Your task to perform on an android device: turn on showing notifications on the lock screen Image 0: 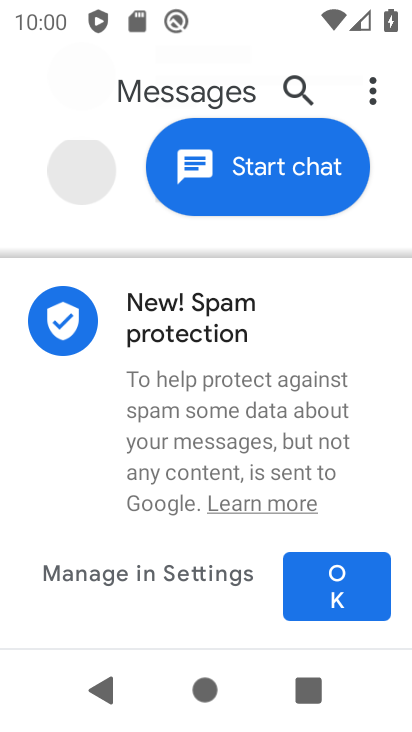
Step 0: press home button
Your task to perform on an android device: turn on showing notifications on the lock screen Image 1: 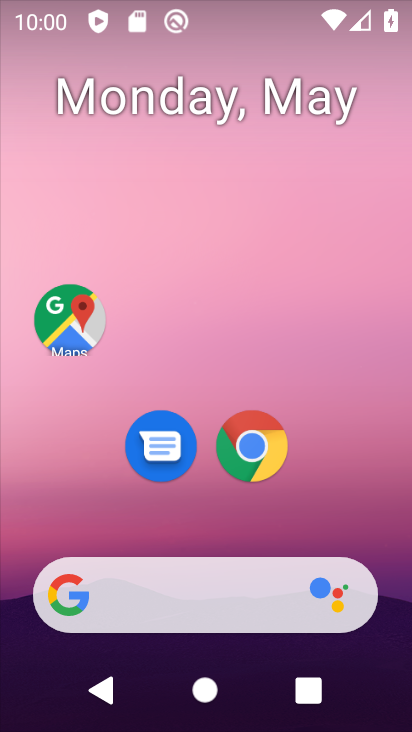
Step 1: drag from (358, 507) to (287, 113)
Your task to perform on an android device: turn on showing notifications on the lock screen Image 2: 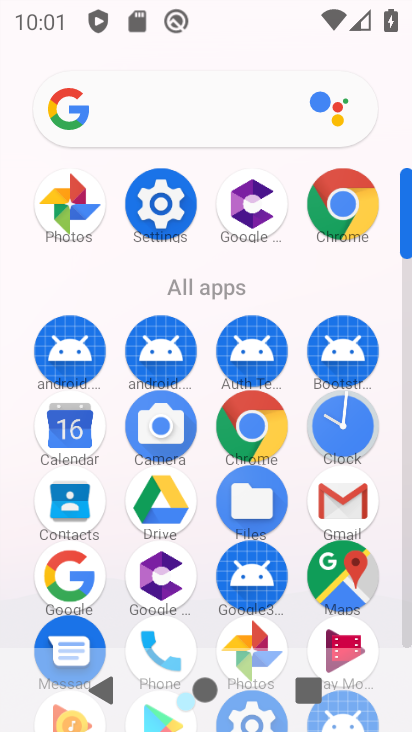
Step 2: click (147, 233)
Your task to perform on an android device: turn on showing notifications on the lock screen Image 3: 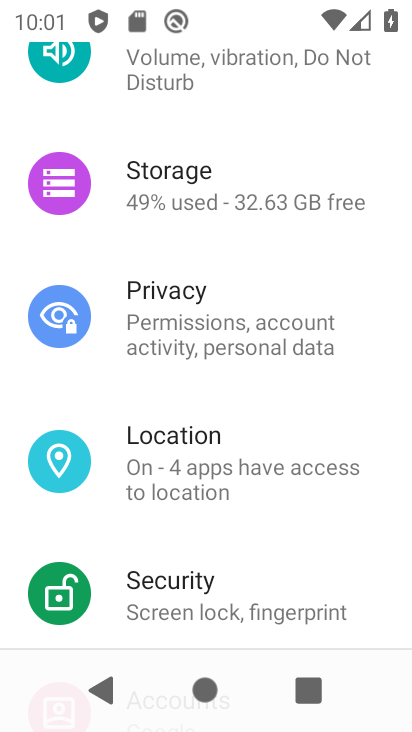
Step 3: drag from (232, 226) to (300, 717)
Your task to perform on an android device: turn on showing notifications on the lock screen Image 4: 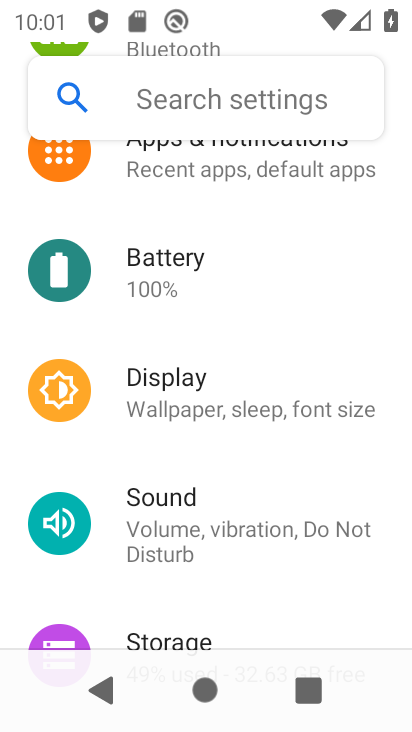
Step 4: drag from (190, 225) to (372, 678)
Your task to perform on an android device: turn on showing notifications on the lock screen Image 5: 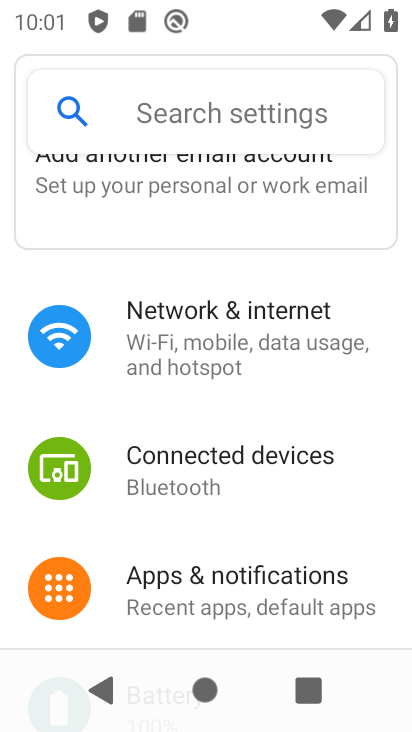
Step 5: click (219, 593)
Your task to perform on an android device: turn on showing notifications on the lock screen Image 6: 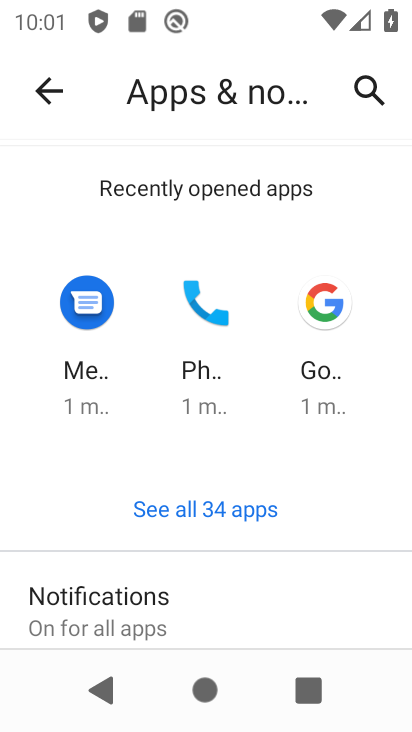
Step 6: click (219, 593)
Your task to perform on an android device: turn on showing notifications on the lock screen Image 7: 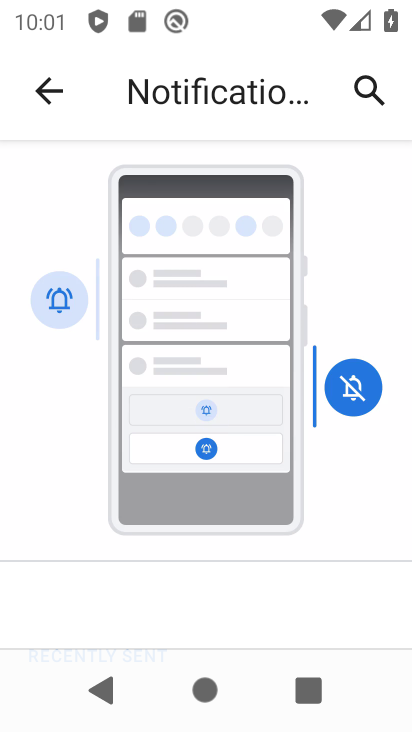
Step 7: drag from (266, 586) to (199, 256)
Your task to perform on an android device: turn on showing notifications on the lock screen Image 8: 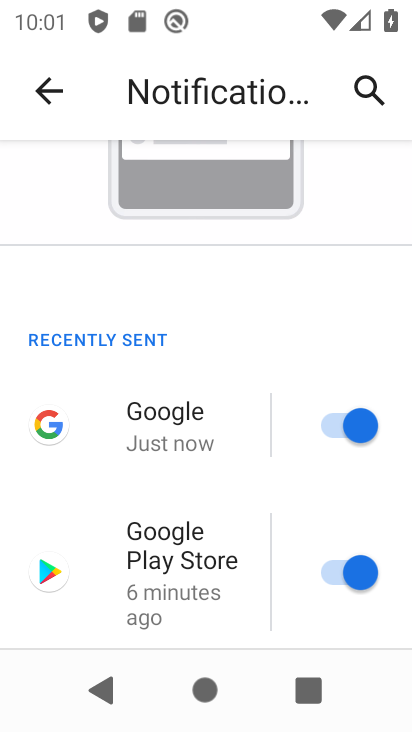
Step 8: drag from (275, 618) to (225, 273)
Your task to perform on an android device: turn on showing notifications on the lock screen Image 9: 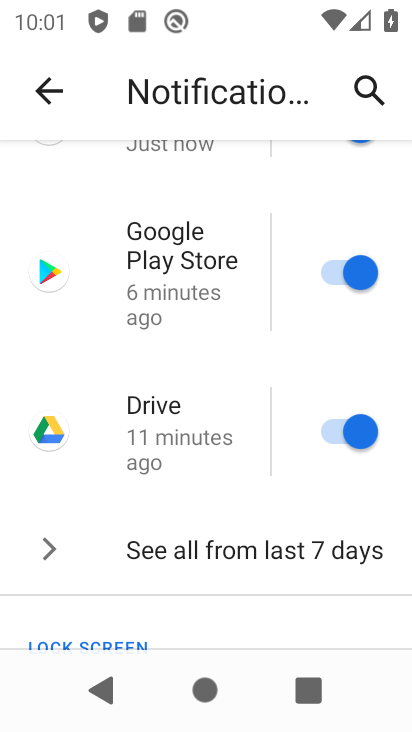
Step 9: drag from (287, 597) to (247, 349)
Your task to perform on an android device: turn on showing notifications on the lock screen Image 10: 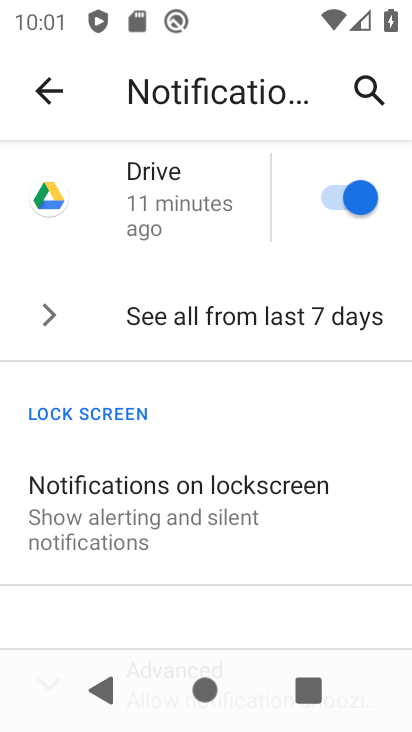
Step 10: drag from (285, 602) to (229, 315)
Your task to perform on an android device: turn on showing notifications on the lock screen Image 11: 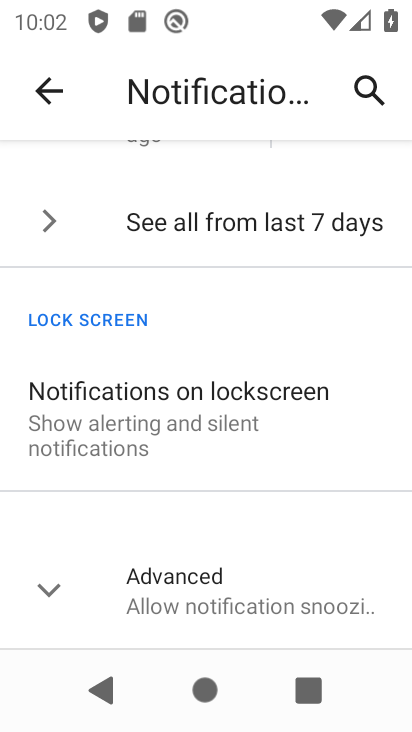
Step 11: click (221, 438)
Your task to perform on an android device: turn on showing notifications on the lock screen Image 12: 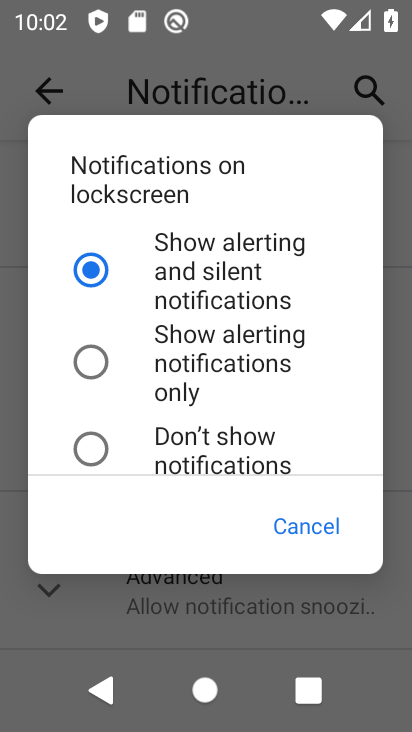
Step 12: task complete